Your task to perform on an android device: turn on wifi Image 0: 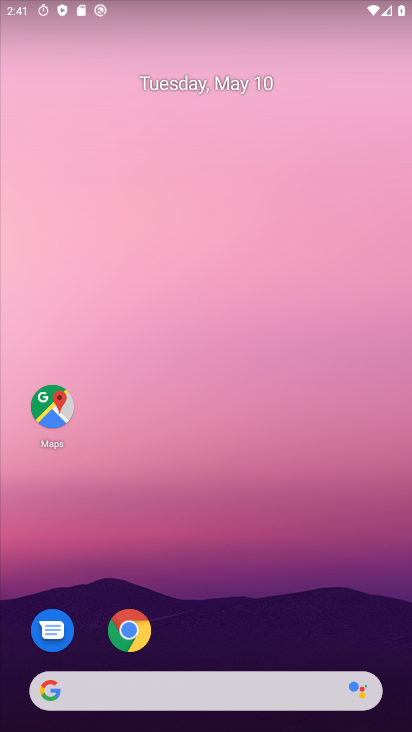
Step 0: drag from (249, 665) to (411, 241)
Your task to perform on an android device: turn on wifi Image 1: 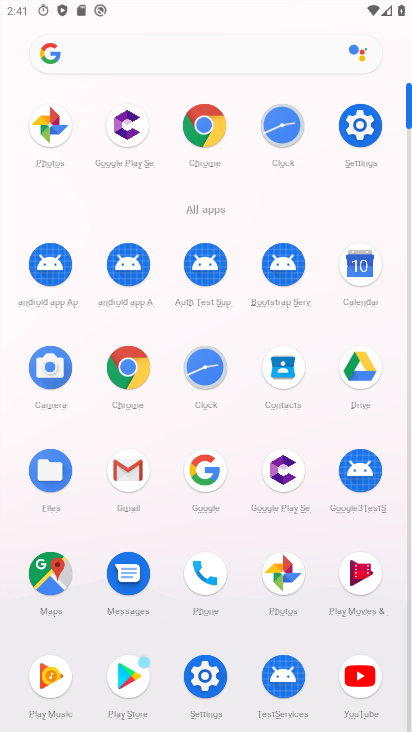
Step 1: click (348, 130)
Your task to perform on an android device: turn on wifi Image 2: 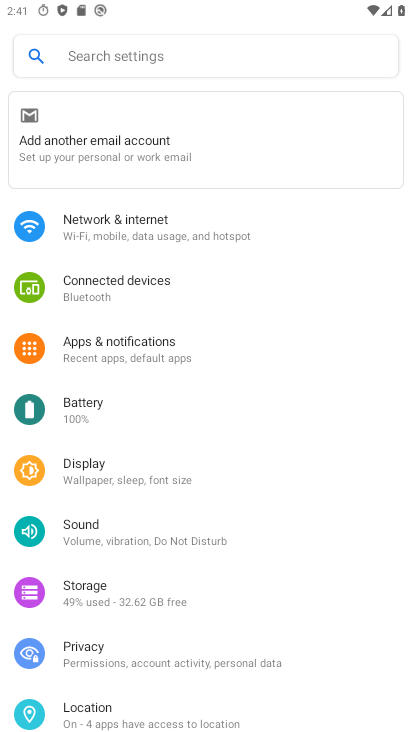
Step 2: click (93, 225)
Your task to perform on an android device: turn on wifi Image 3: 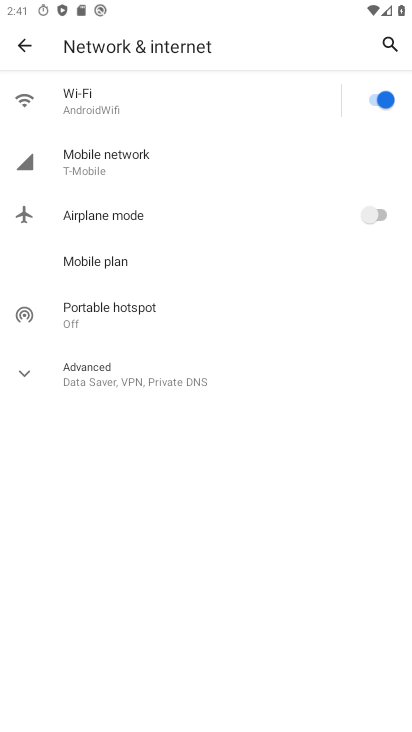
Step 3: task complete